Your task to perform on an android device: Open the stopwatch Image 0: 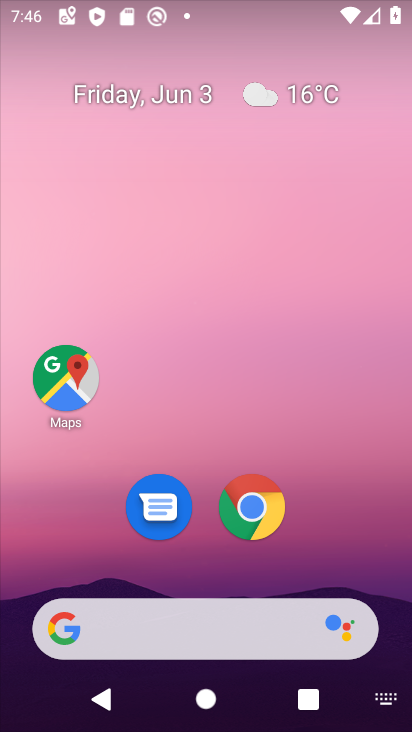
Step 0: drag from (317, 421) to (215, 22)
Your task to perform on an android device: Open the stopwatch Image 1: 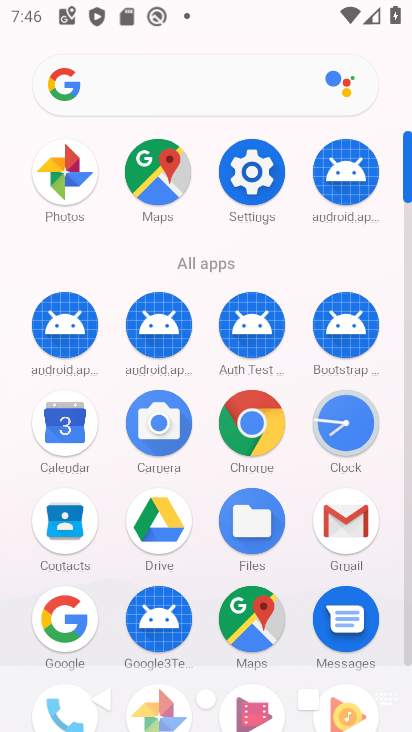
Step 1: click (357, 432)
Your task to perform on an android device: Open the stopwatch Image 2: 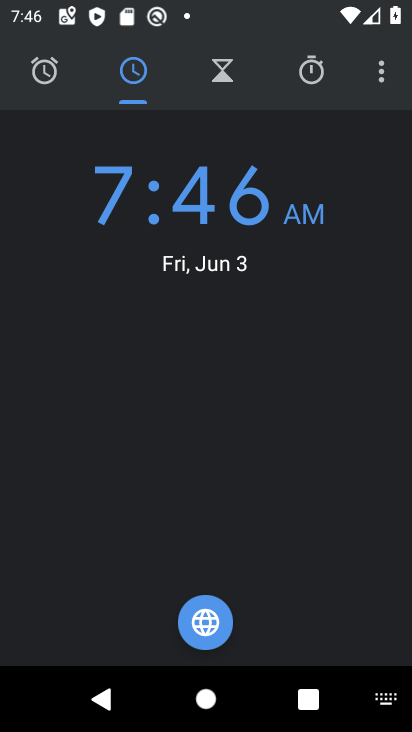
Step 2: click (317, 71)
Your task to perform on an android device: Open the stopwatch Image 3: 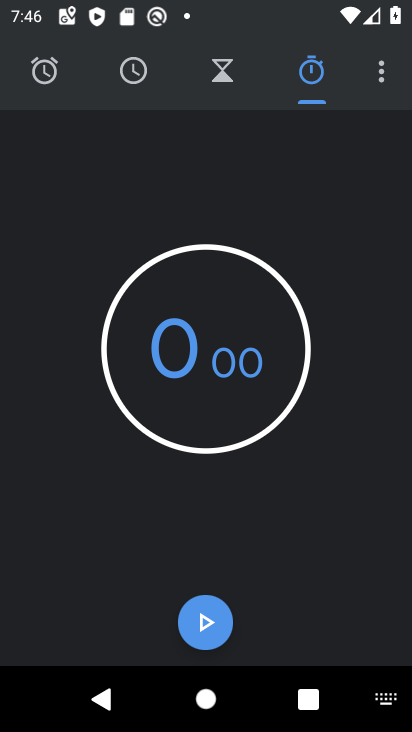
Step 3: click (209, 614)
Your task to perform on an android device: Open the stopwatch Image 4: 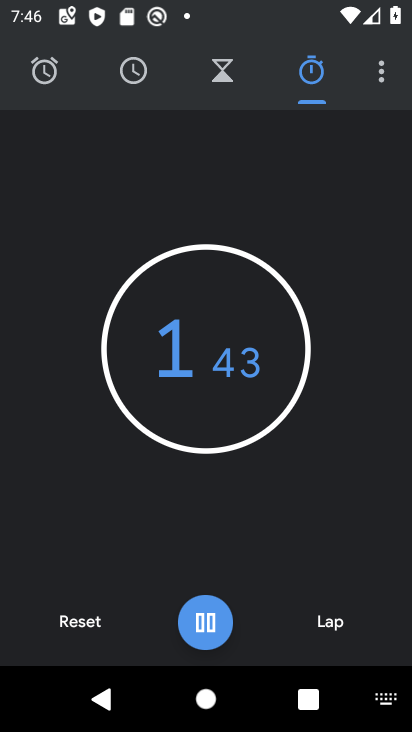
Step 4: click (199, 615)
Your task to perform on an android device: Open the stopwatch Image 5: 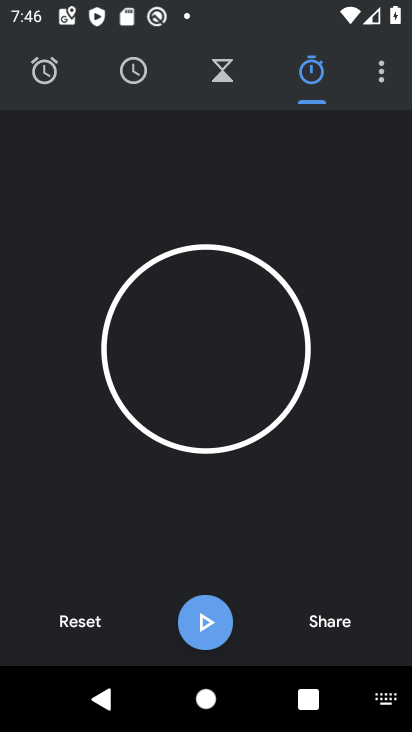
Step 5: click (60, 622)
Your task to perform on an android device: Open the stopwatch Image 6: 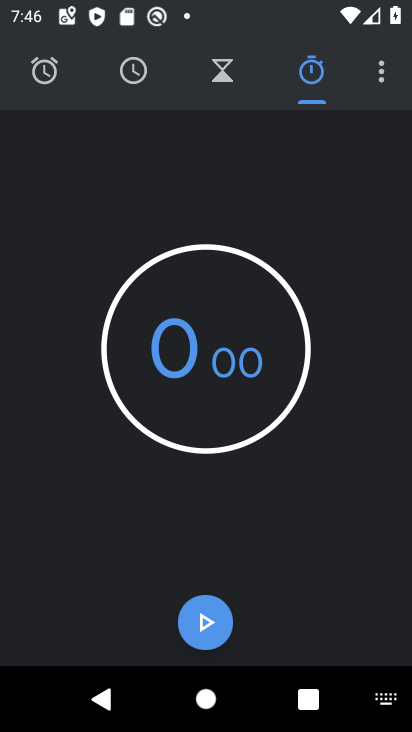
Step 6: task complete